Your task to perform on an android device: check google app version Image 0: 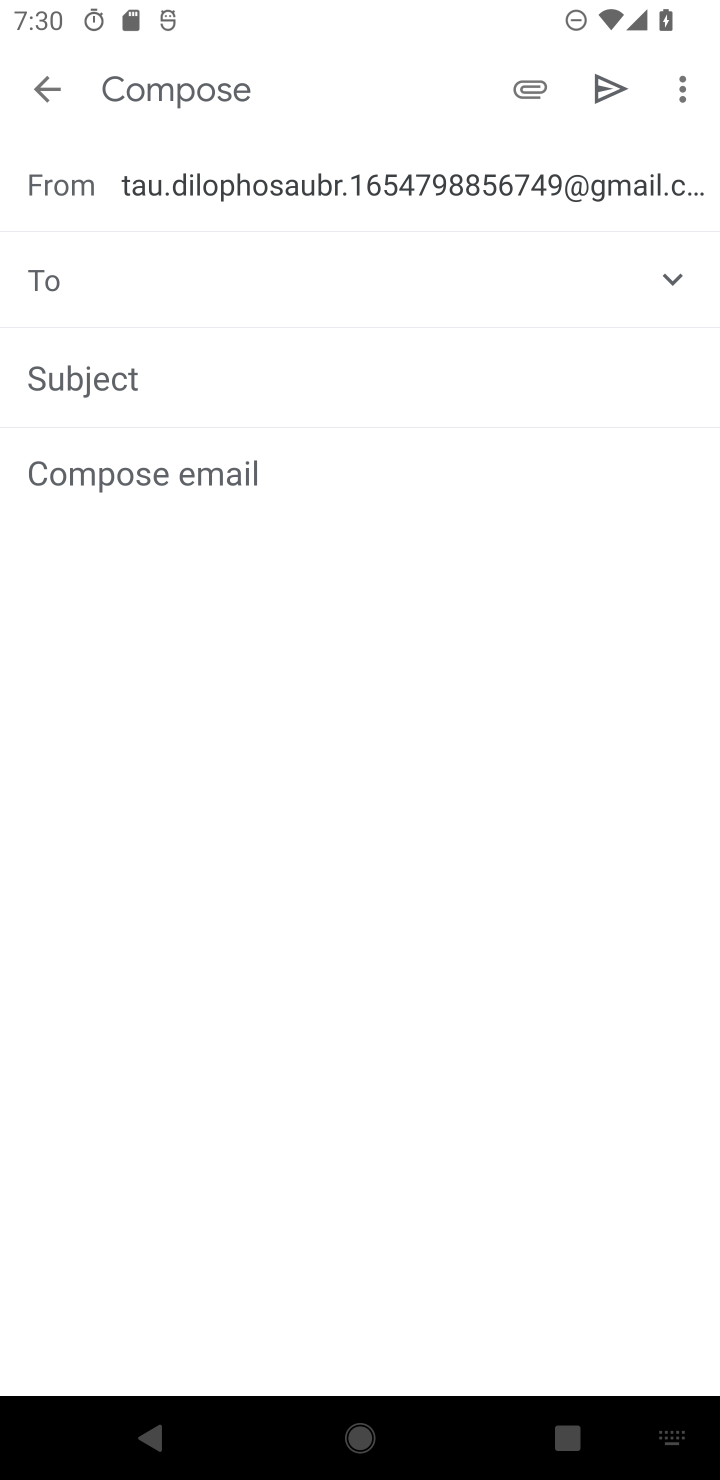
Step 0: press home button
Your task to perform on an android device: check google app version Image 1: 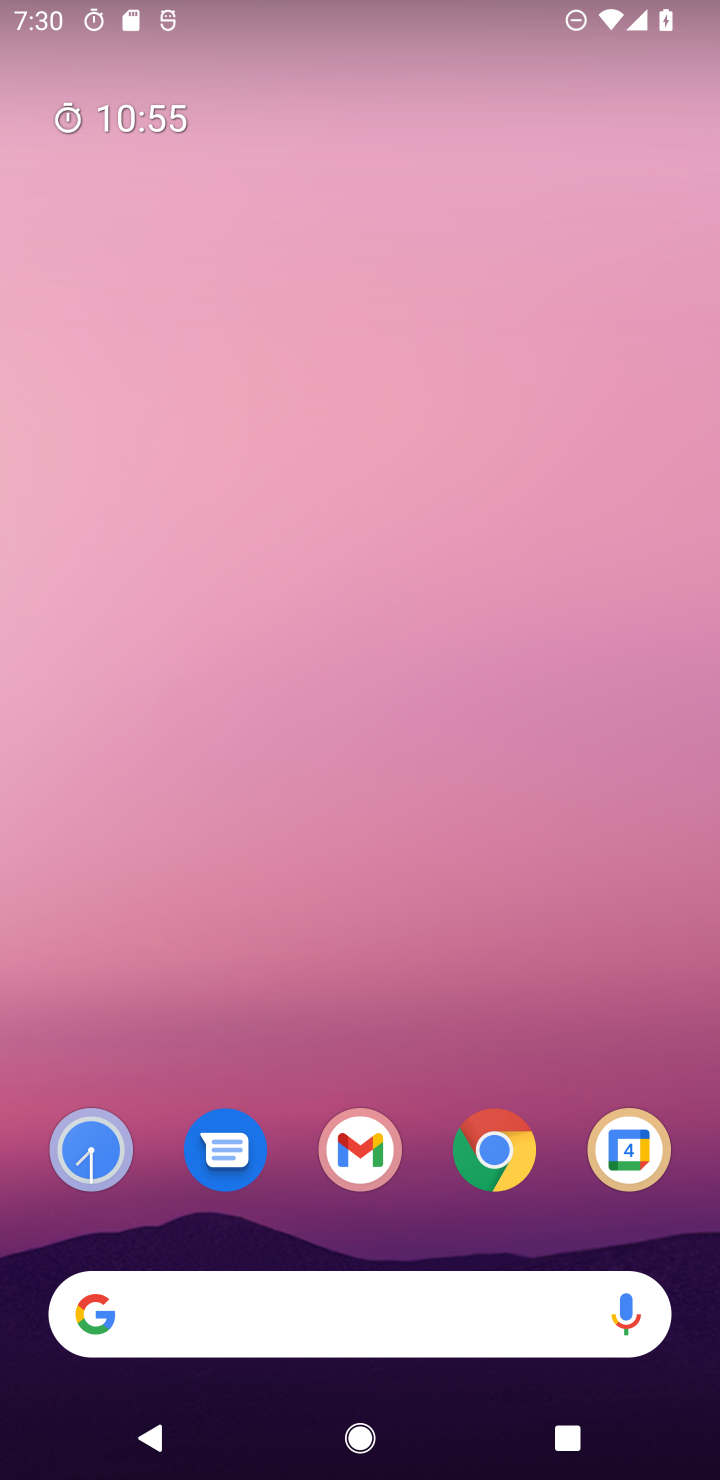
Step 1: drag from (397, 1296) to (530, 10)
Your task to perform on an android device: check google app version Image 2: 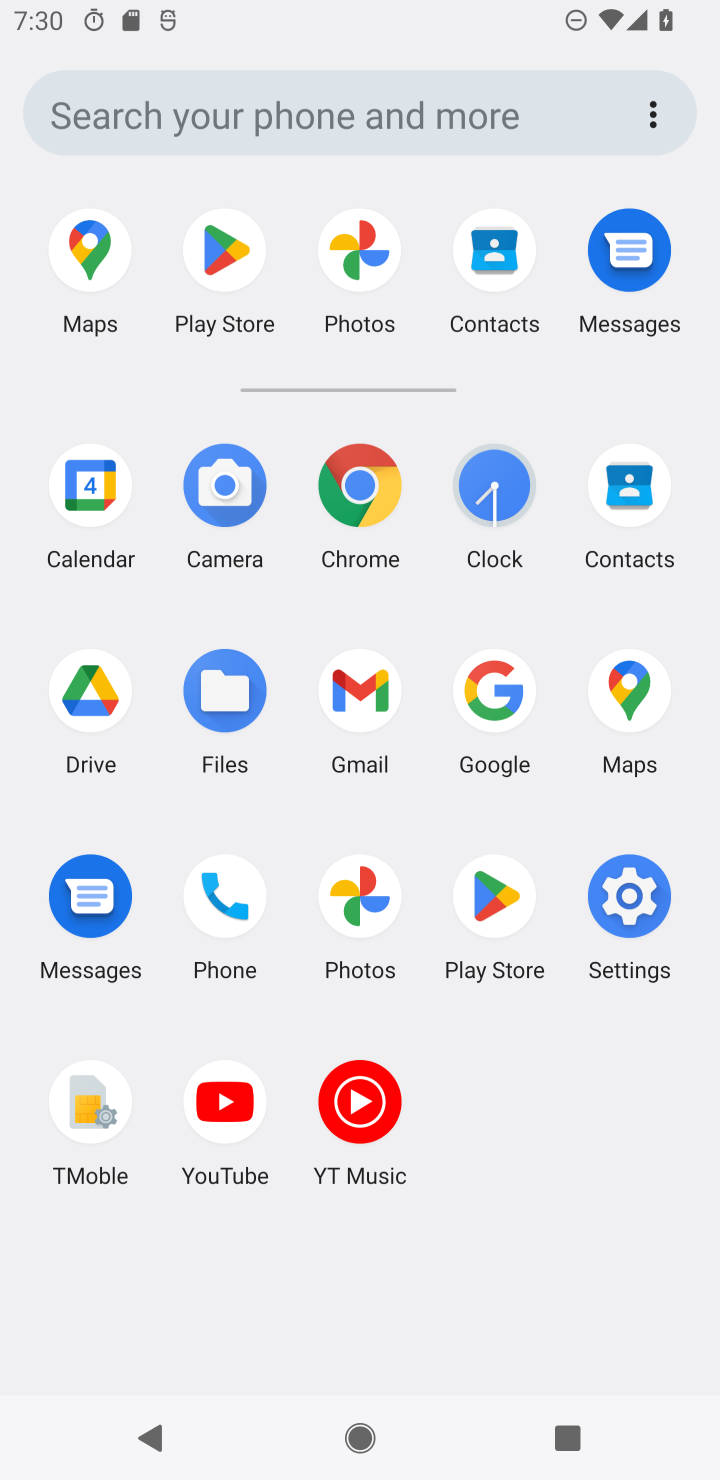
Step 2: click (367, 492)
Your task to perform on an android device: check google app version Image 3: 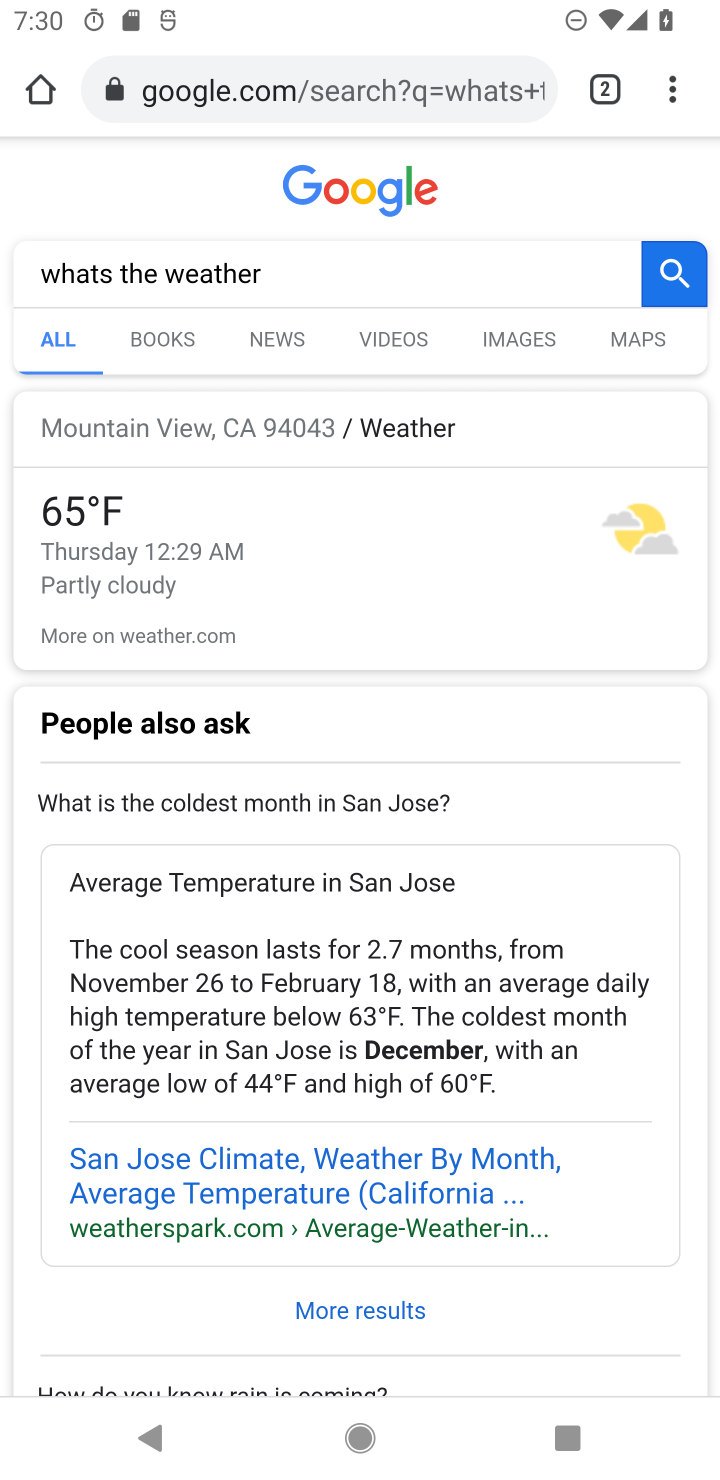
Step 3: click (674, 84)
Your task to perform on an android device: check google app version Image 4: 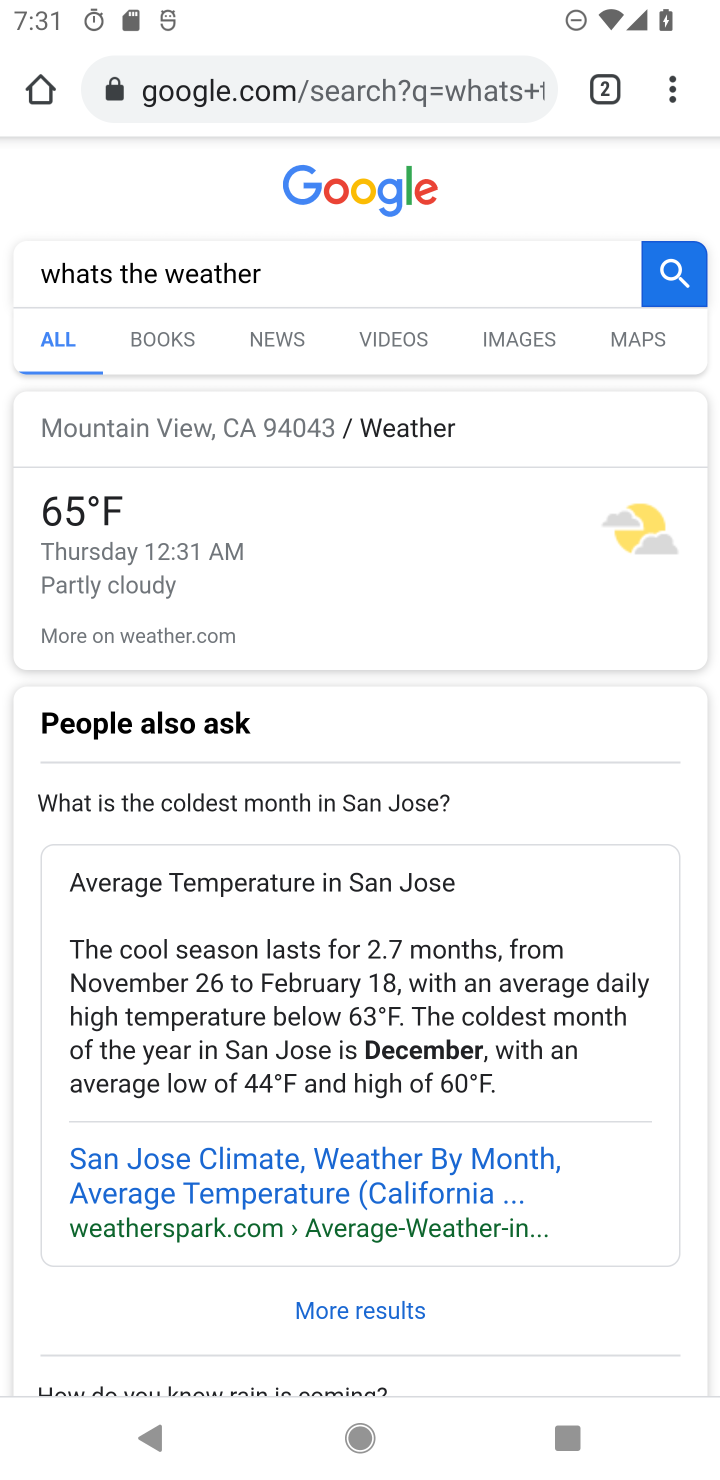
Step 4: drag from (666, 94) to (398, 1316)
Your task to perform on an android device: check google app version Image 5: 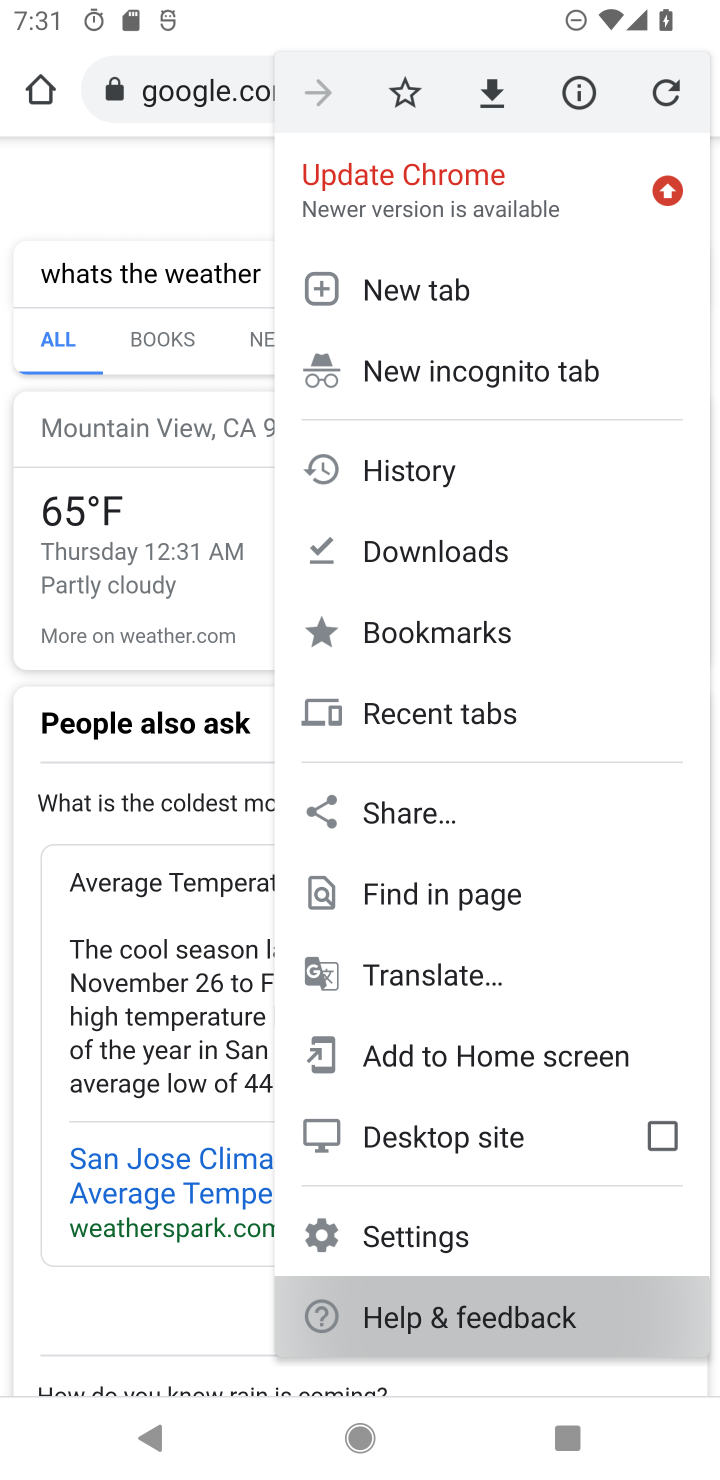
Step 5: click (432, 1326)
Your task to perform on an android device: check google app version Image 6: 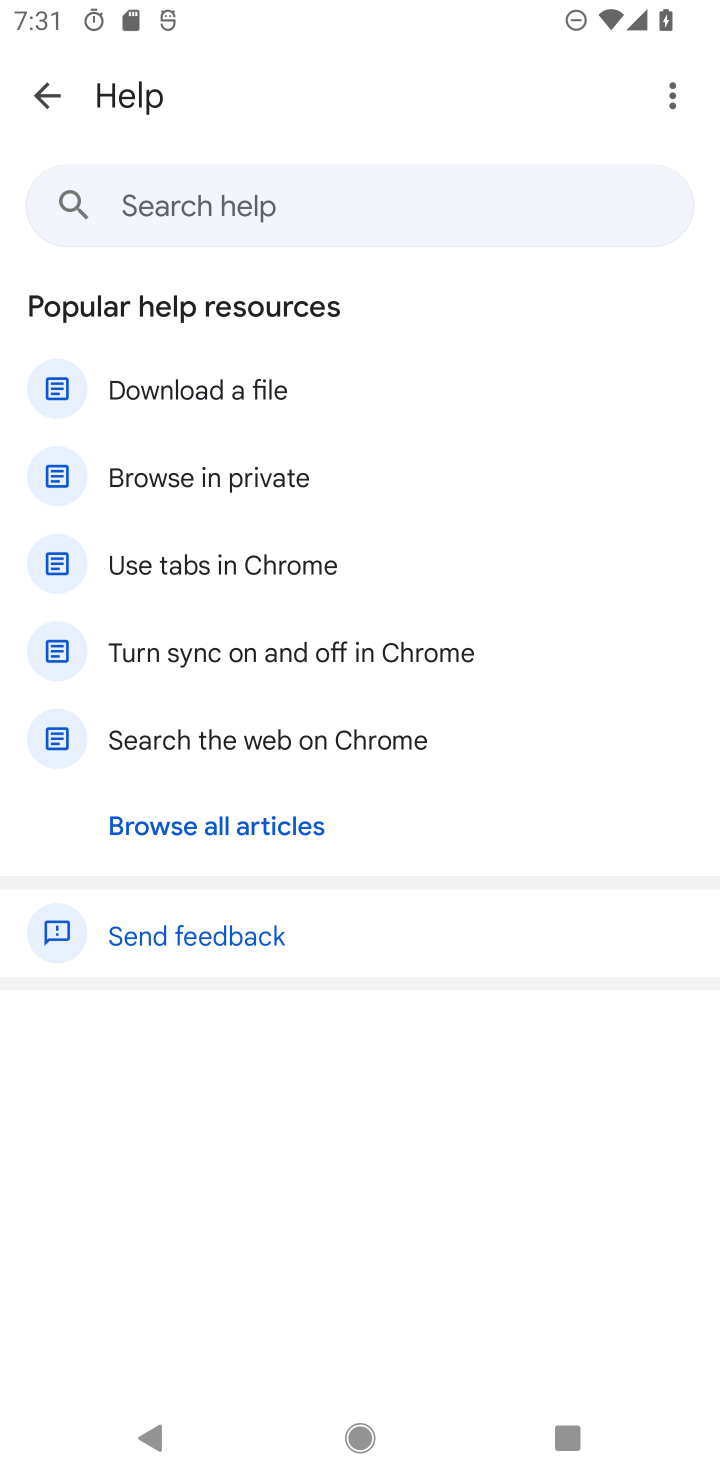
Step 6: click (665, 98)
Your task to perform on an android device: check google app version Image 7: 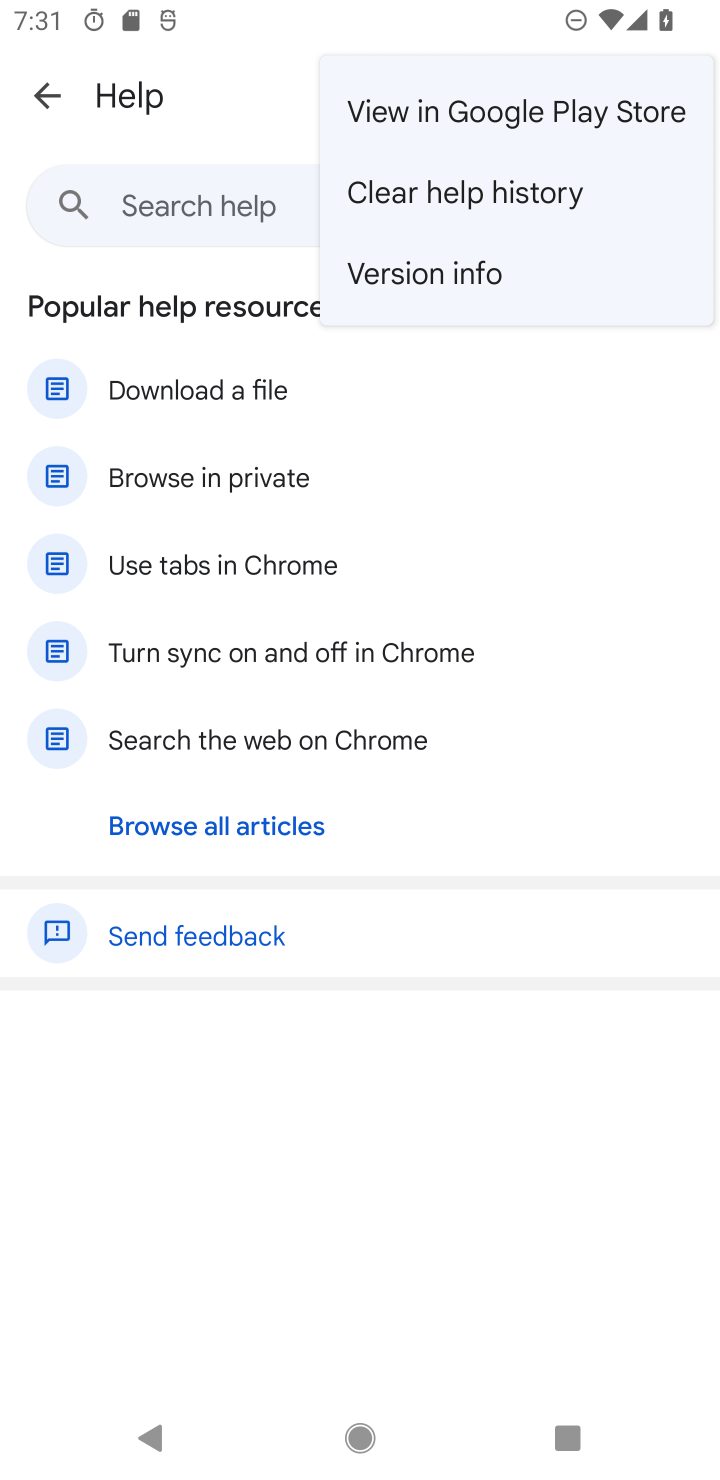
Step 7: click (393, 272)
Your task to perform on an android device: check google app version Image 8: 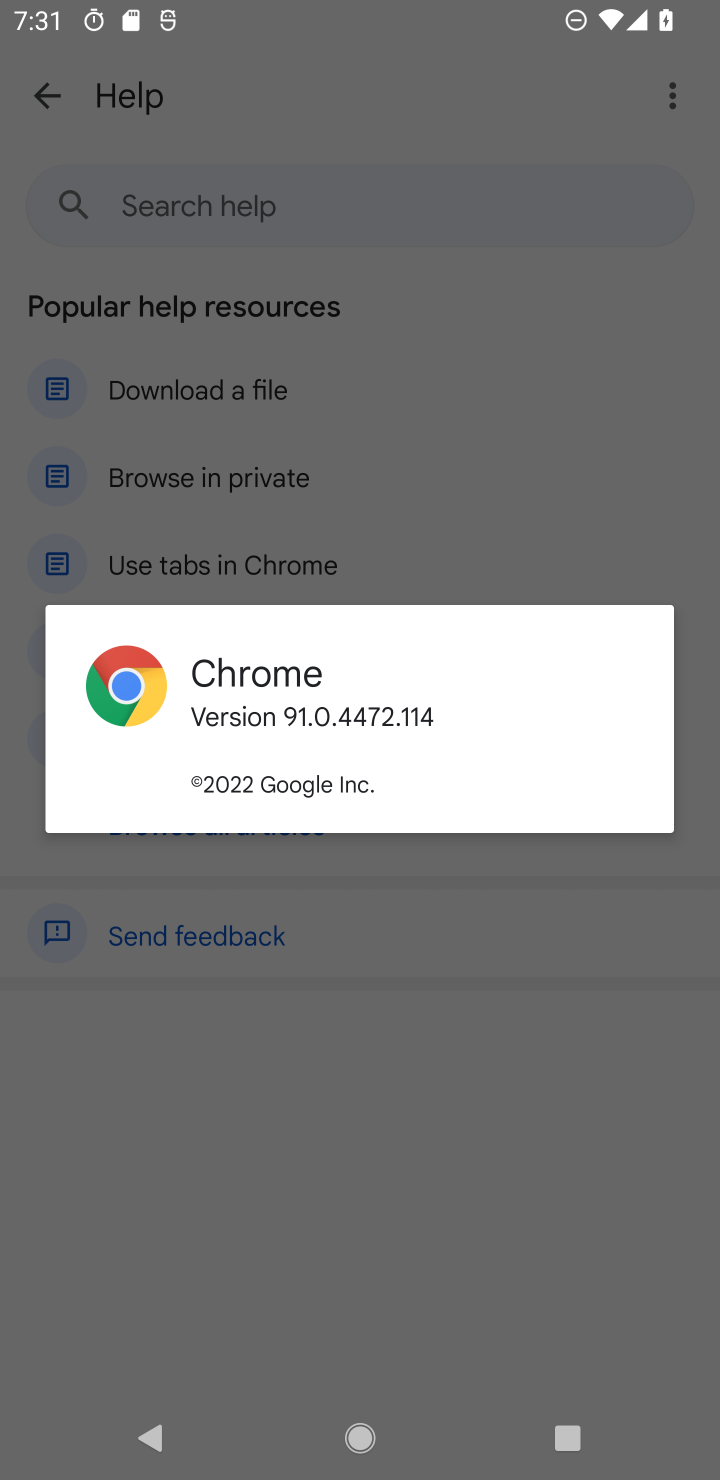
Step 8: task complete